Your task to perform on an android device: Go to Amazon Image 0: 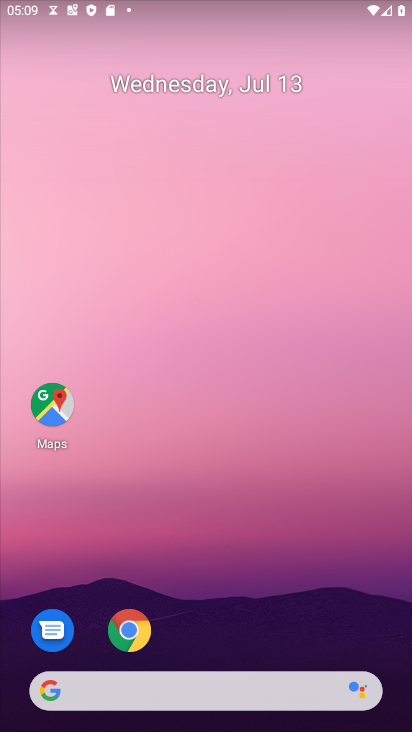
Step 0: drag from (243, 675) to (309, 98)
Your task to perform on an android device: Go to Amazon Image 1: 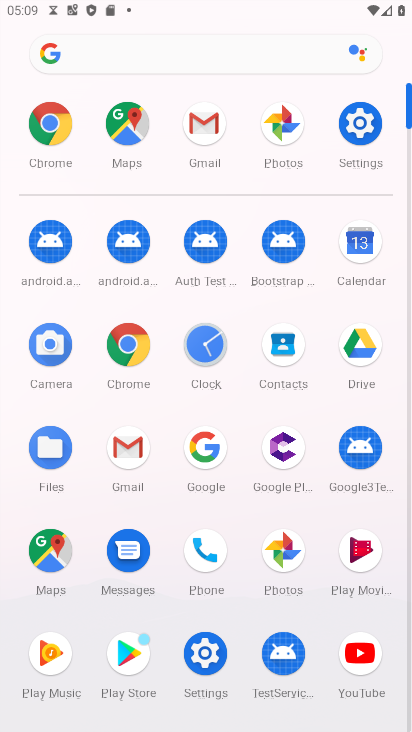
Step 1: click (120, 344)
Your task to perform on an android device: Go to Amazon Image 2: 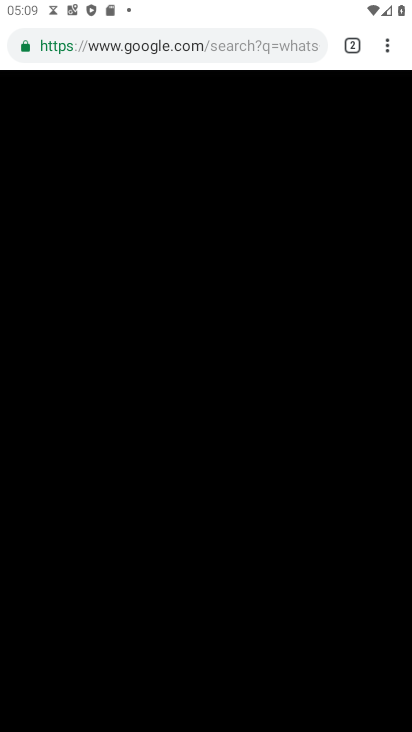
Step 2: click (201, 37)
Your task to perform on an android device: Go to Amazon Image 3: 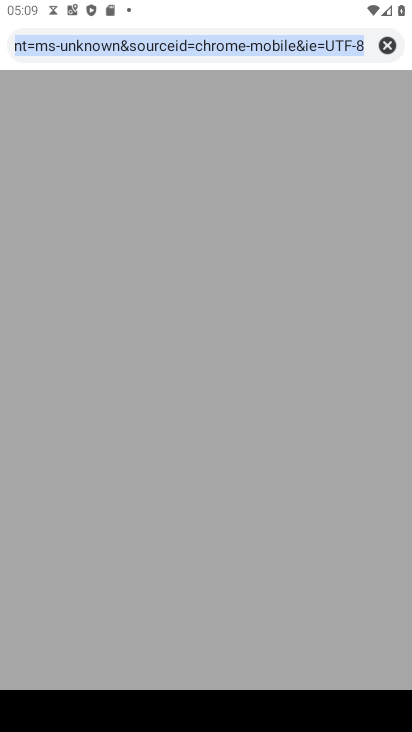
Step 3: type "amazon"
Your task to perform on an android device: Go to Amazon Image 4: 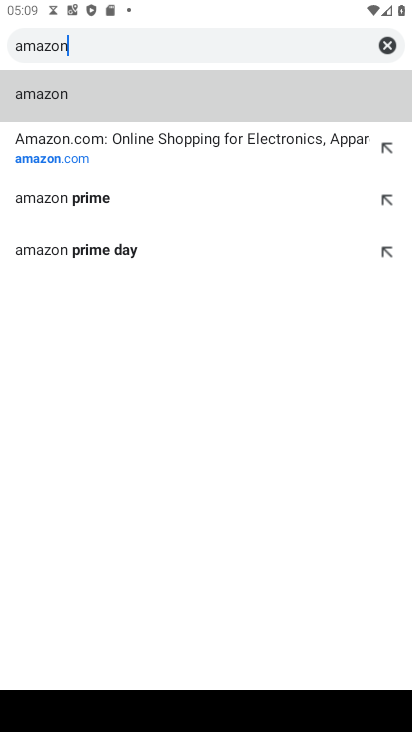
Step 4: click (91, 150)
Your task to perform on an android device: Go to Amazon Image 5: 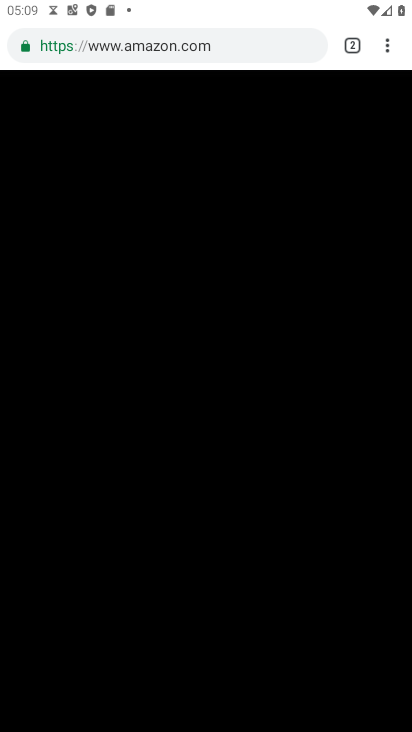
Step 5: task complete